Your task to perform on an android device: Go to Amazon Image 0: 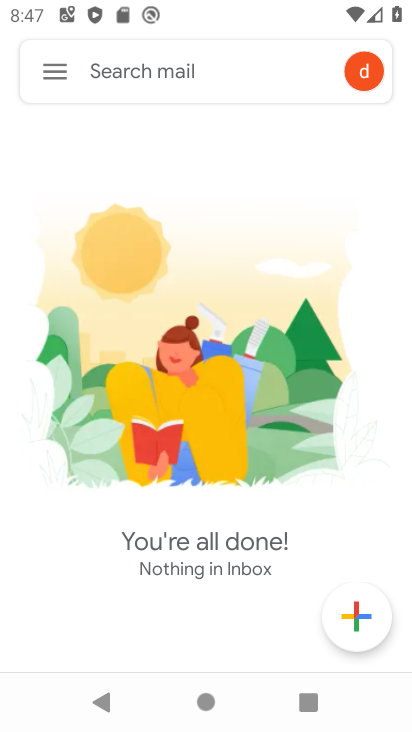
Step 0: press home button
Your task to perform on an android device: Go to Amazon Image 1: 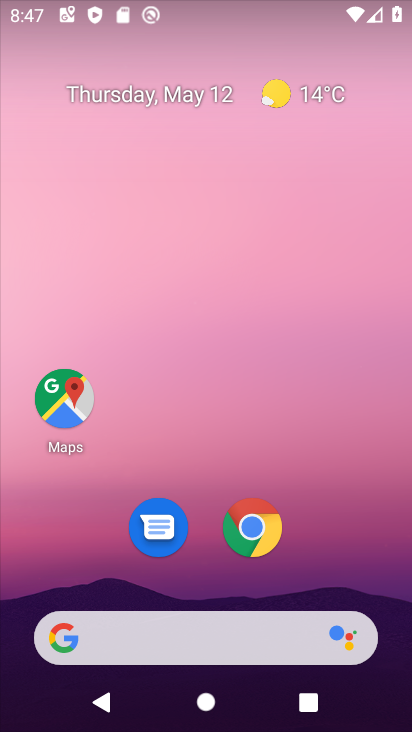
Step 1: click (275, 519)
Your task to perform on an android device: Go to Amazon Image 2: 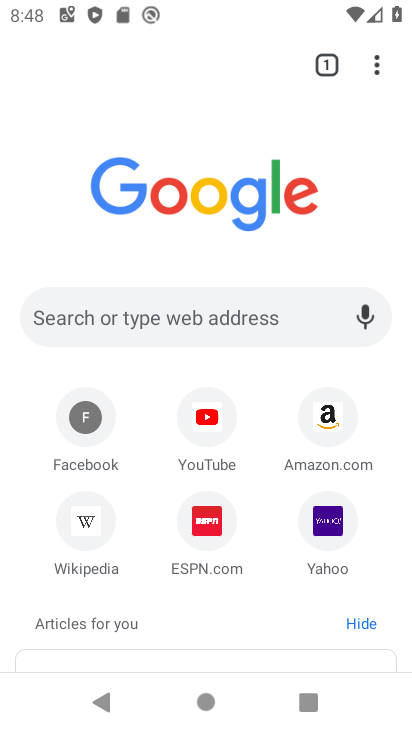
Step 2: click (316, 445)
Your task to perform on an android device: Go to Amazon Image 3: 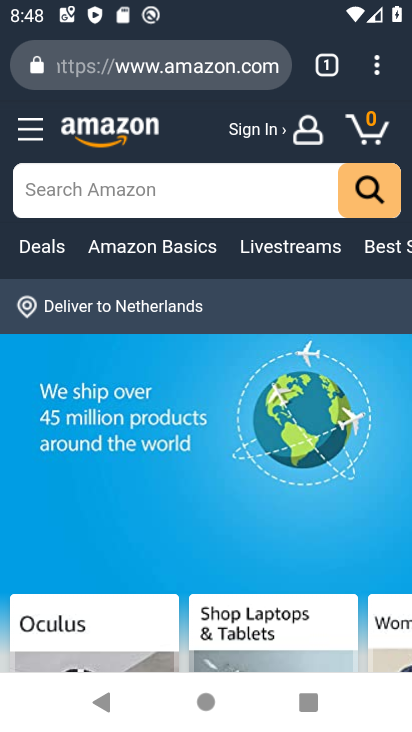
Step 3: task complete